Your task to perform on an android device: turn notification dots on Image 0: 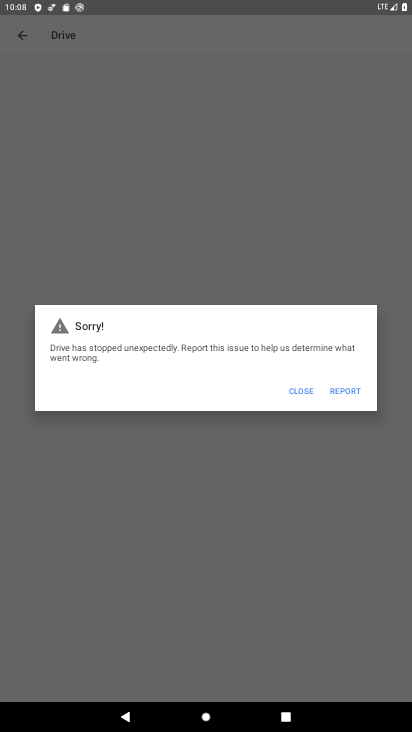
Step 0: press home button
Your task to perform on an android device: turn notification dots on Image 1: 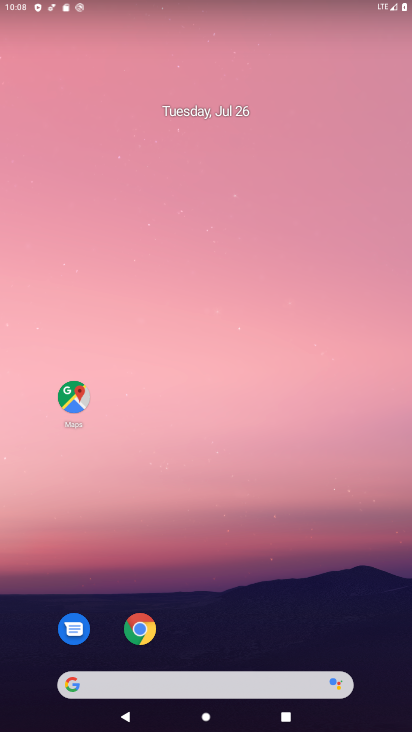
Step 1: drag from (184, 678) to (193, 22)
Your task to perform on an android device: turn notification dots on Image 2: 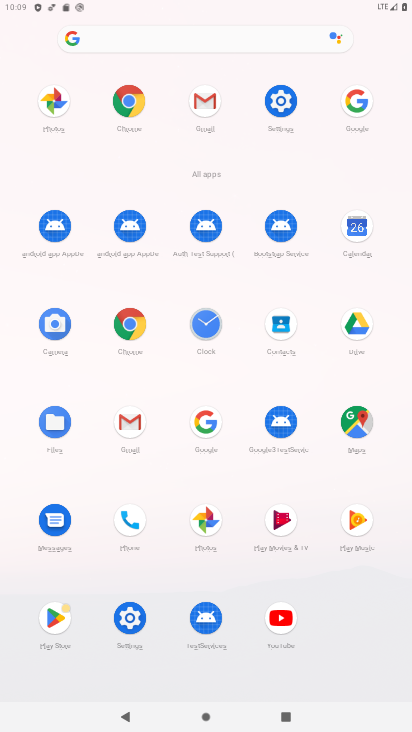
Step 2: click (280, 101)
Your task to perform on an android device: turn notification dots on Image 3: 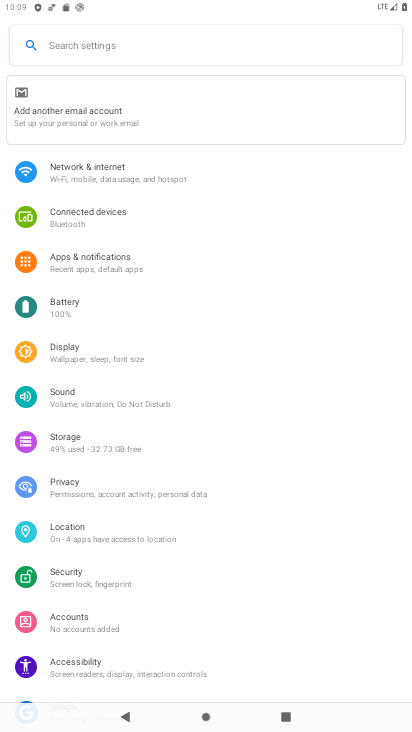
Step 3: click (103, 260)
Your task to perform on an android device: turn notification dots on Image 4: 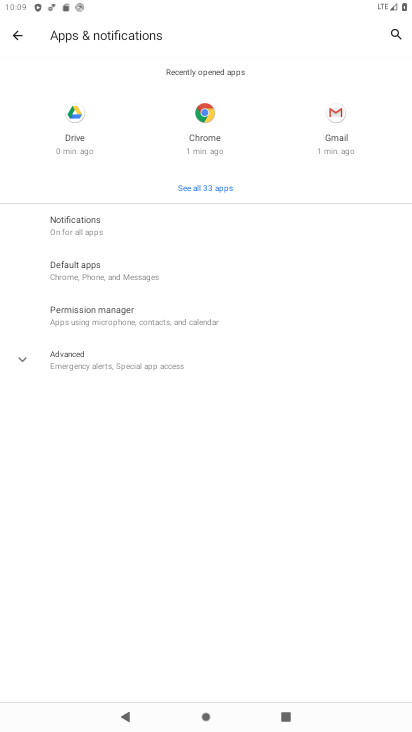
Step 4: click (72, 226)
Your task to perform on an android device: turn notification dots on Image 5: 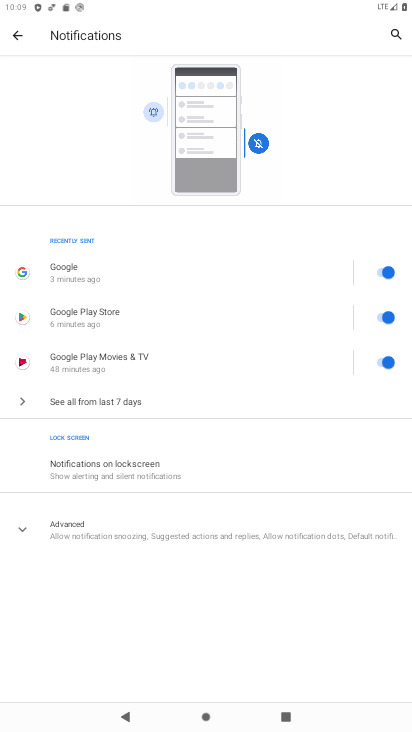
Step 5: click (99, 530)
Your task to perform on an android device: turn notification dots on Image 6: 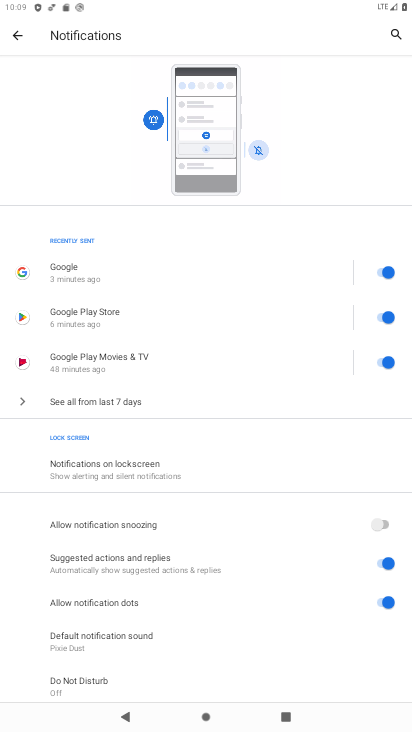
Step 6: task complete